Your task to perform on an android device: Empty the shopping cart on walmart. Add "razer naga" to the cart on walmart, then select checkout. Image 0: 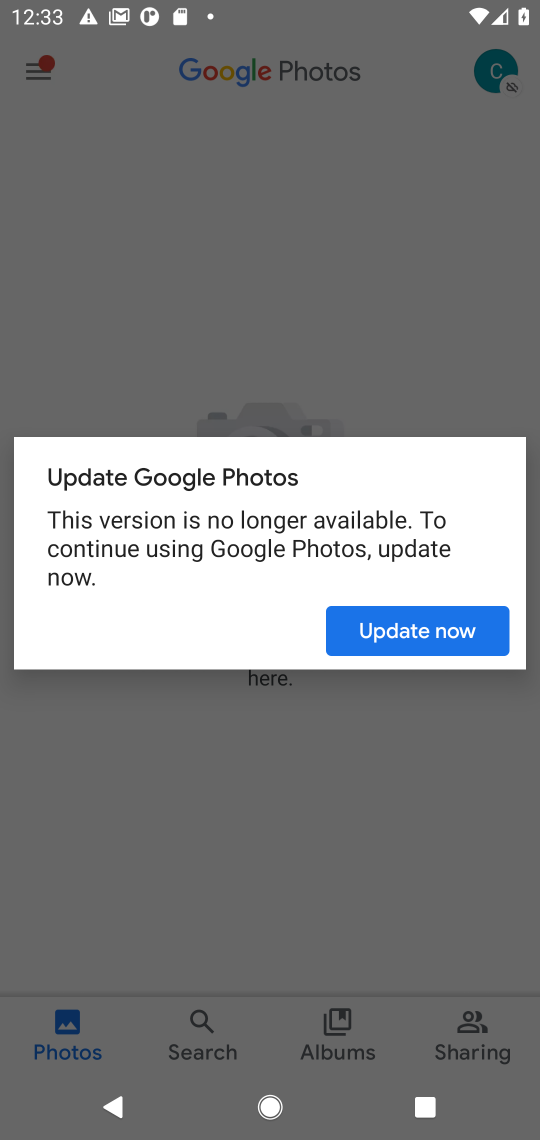
Step 0: task complete